Your task to perform on an android device: snooze an email in the gmail app Image 0: 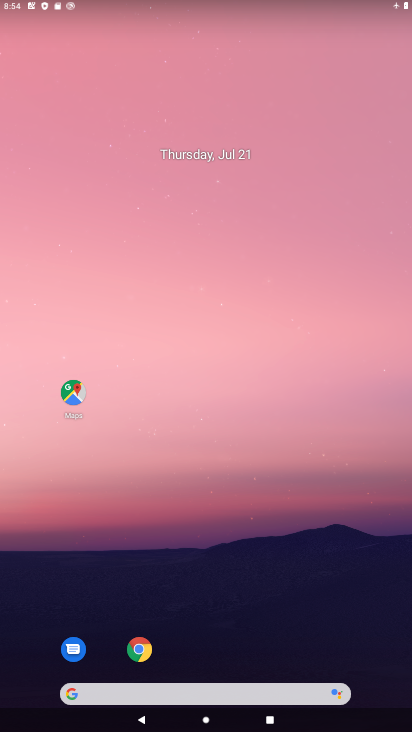
Step 0: drag from (220, 647) to (196, 196)
Your task to perform on an android device: snooze an email in the gmail app Image 1: 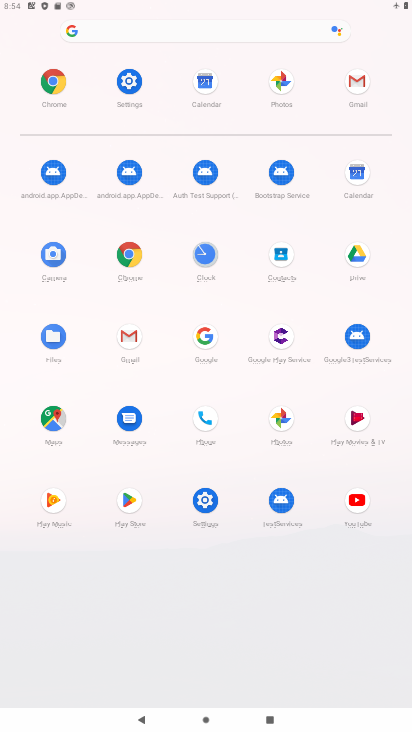
Step 1: click (124, 339)
Your task to perform on an android device: snooze an email in the gmail app Image 2: 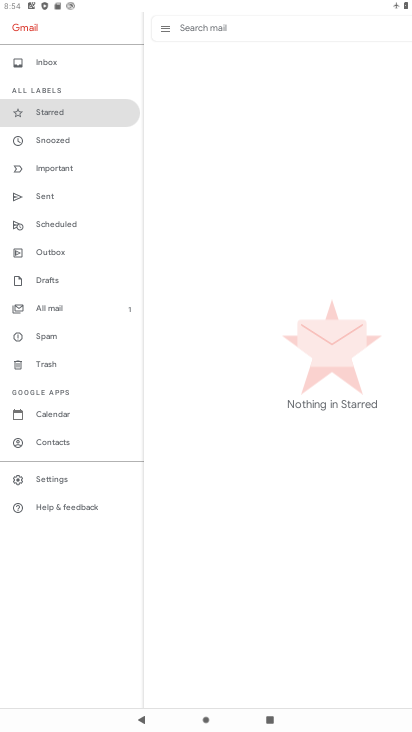
Step 2: click (75, 144)
Your task to perform on an android device: snooze an email in the gmail app Image 3: 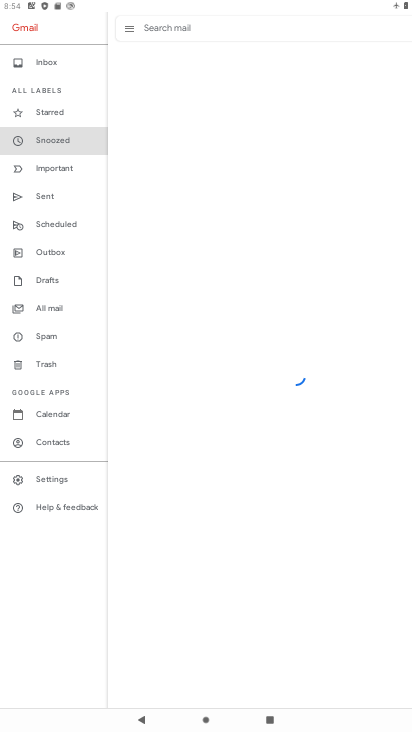
Step 3: task complete